Your task to perform on an android device: What's on my calendar today? Image 0: 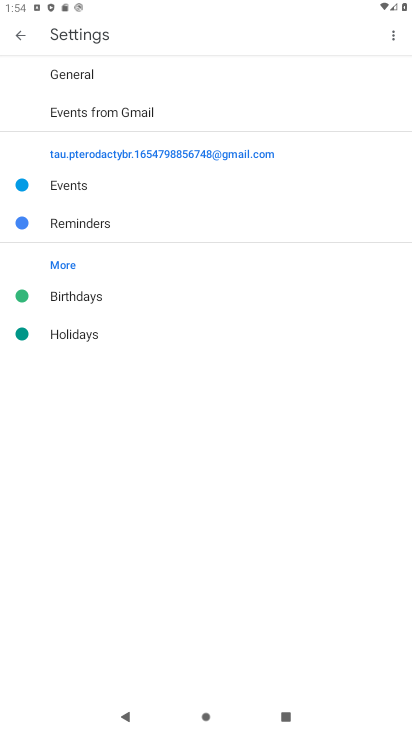
Step 0: press home button
Your task to perform on an android device: What's on my calendar today? Image 1: 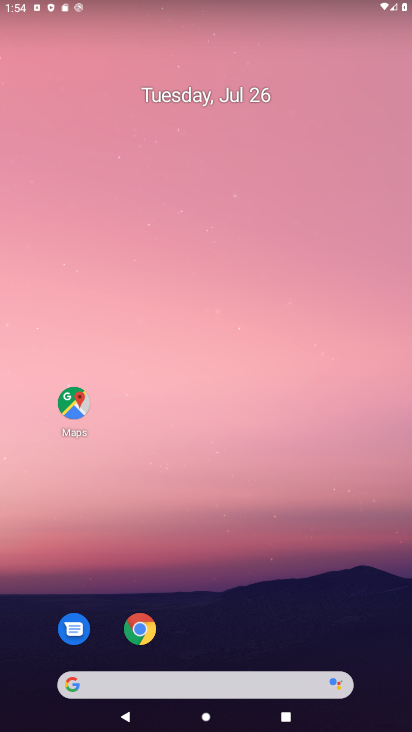
Step 1: drag from (387, 654) to (352, 174)
Your task to perform on an android device: What's on my calendar today? Image 2: 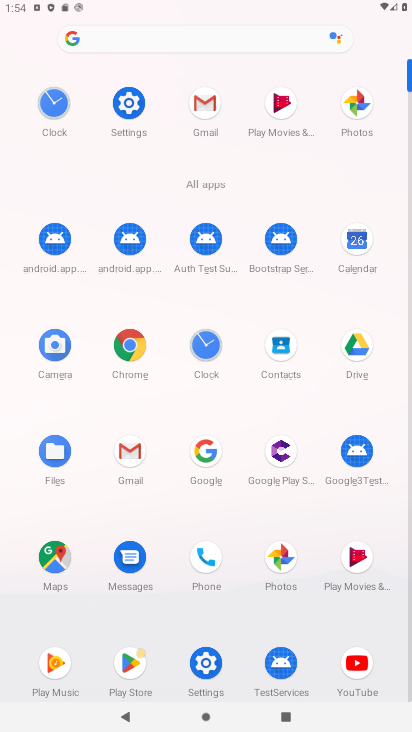
Step 2: click (358, 239)
Your task to perform on an android device: What's on my calendar today? Image 3: 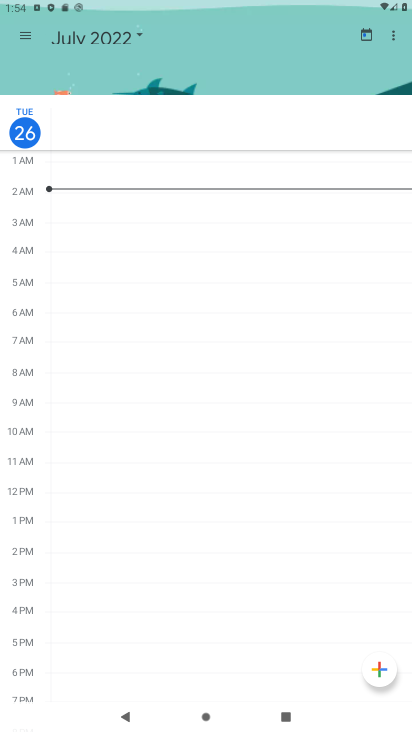
Step 3: click (173, 243)
Your task to perform on an android device: What's on my calendar today? Image 4: 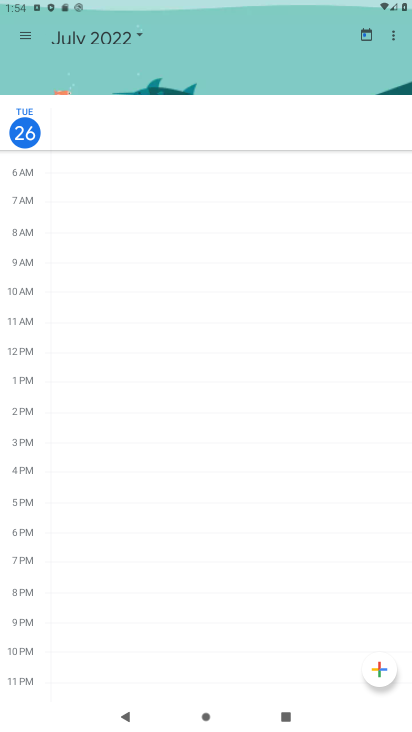
Step 4: task complete